Your task to perform on an android device: see tabs open on other devices in the chrome app Image 0: 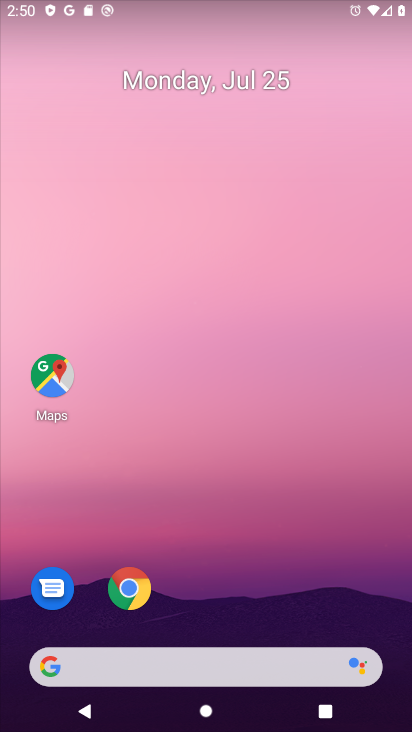
Step 0: press home button
Your task to perform on an android device: see tabs open on other devices in the chrome app Image 1: 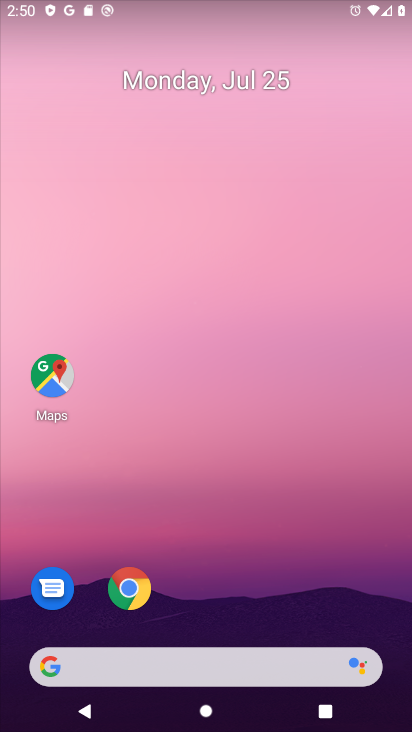
Step 1: click (127, 584)
Your task to perform on an android device: see tabs open on other devices in the chrome app Image 2: 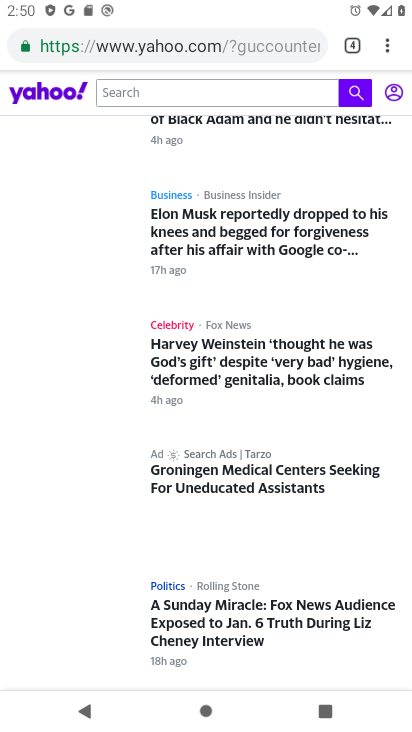
Step 2: click (391, 46)
Your task to perform on an android device: see tabs open on other devices in the chrome app Image 3: 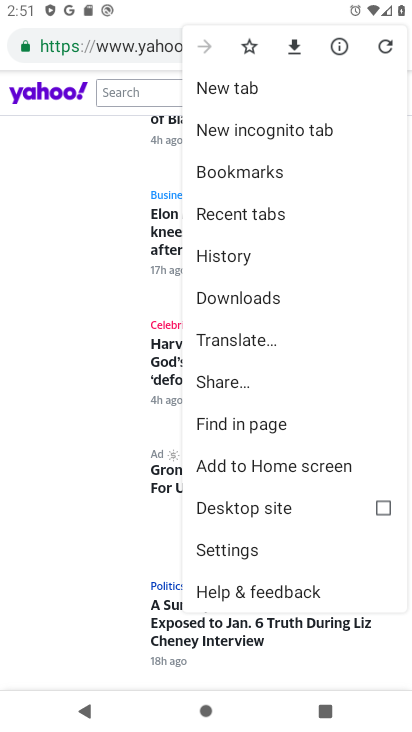
Step 3: click (290, 209)
Your task to perform on an android device: see tabs open on other devices in the chrome app Image 4: 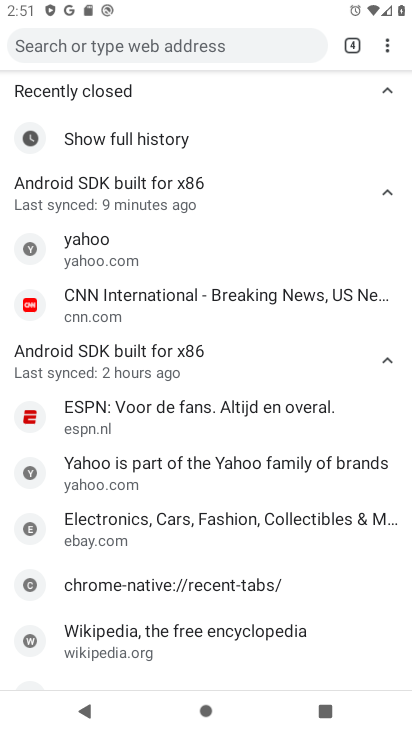
Step 4: task complete